Your task to perform on an android device: manage bookmarks in the chrome app Image 0: 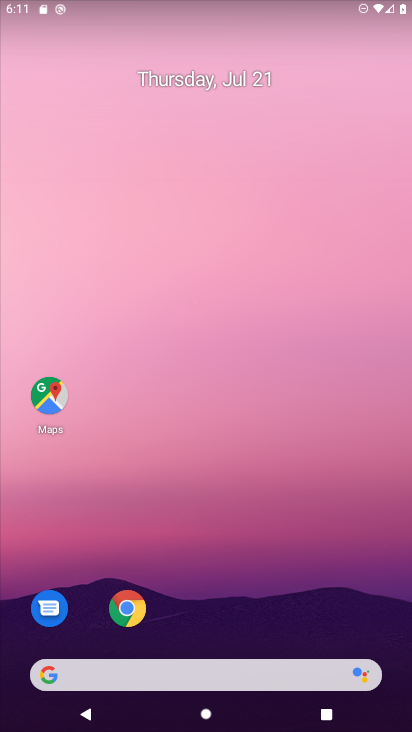
Step 0: click (127, 608)
Your task to perform on an android device: manage bookmarks in the chrome app Image 1: 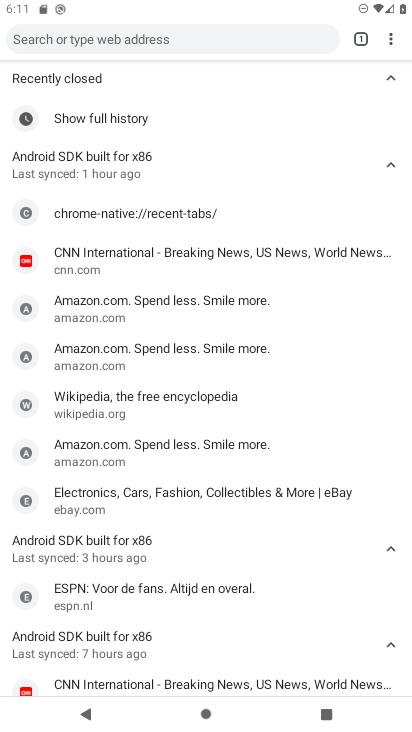
Step 1: click (392, 38)
Your task to perform on an android device: manage bookmarks in the chrome app Image 2: 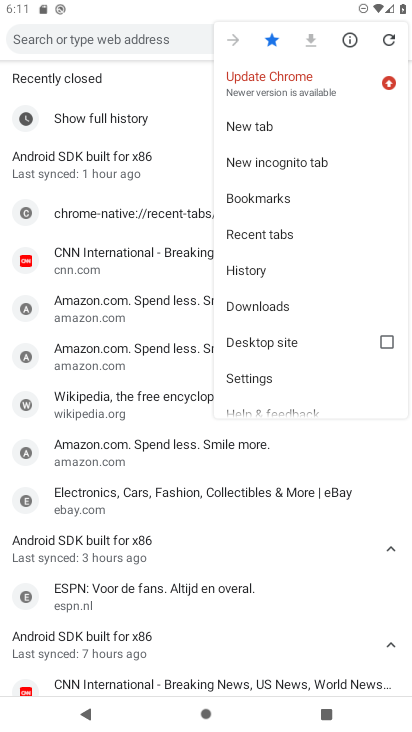
Step 2: click (277, 198)
Your task to perform on an android device: manage bookmarks in the chrome app Image 3: 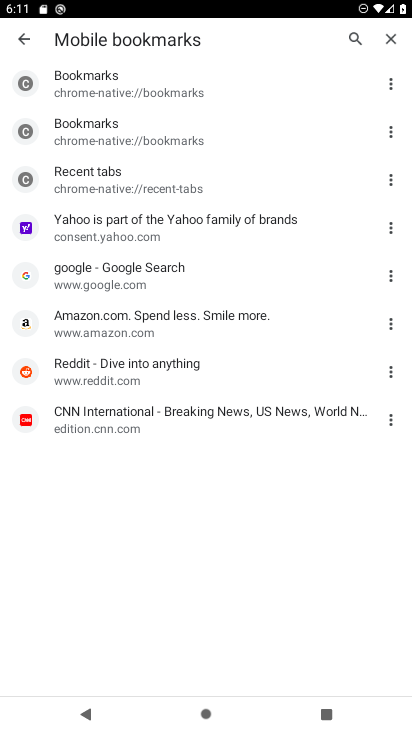
Step 3: click (390, 78)
Your task to perform on an android device: manage bookmarks in the chrome app Image 4: 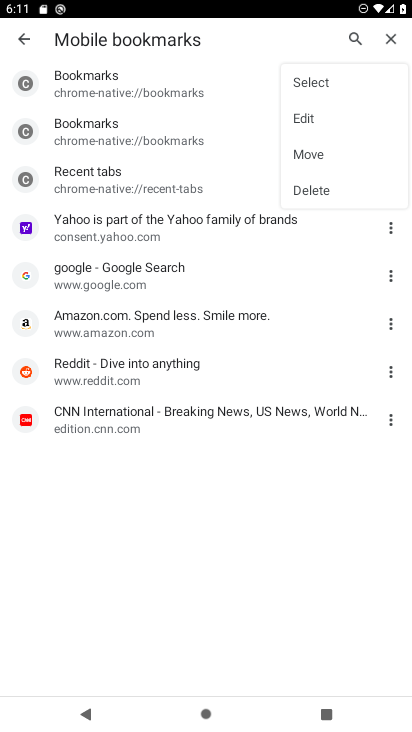
Step 4: click (303, 117)
Your task to perform on an android device: manage bookmarks in the chrome app Image 5: 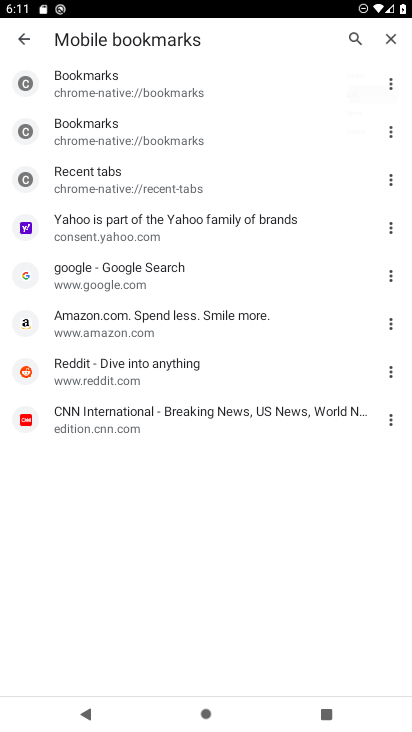
Step 5: click (303, 117)
Your task to perform on an android device: manage bookmarks in the chrome app Image 6: 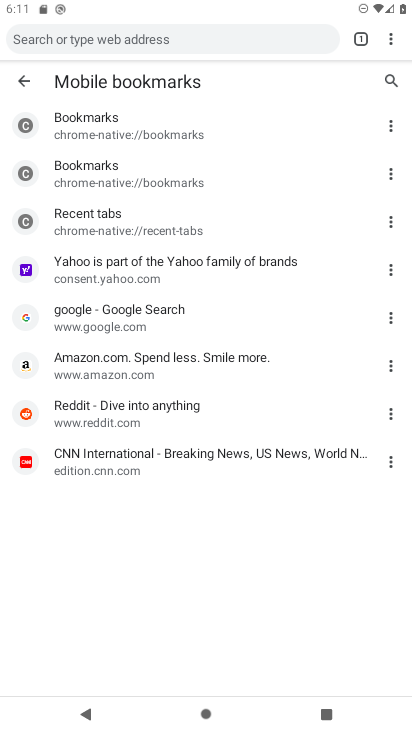
Step 6: task complete